Your task to perform on an android device: toggle sleep mode Image 0: 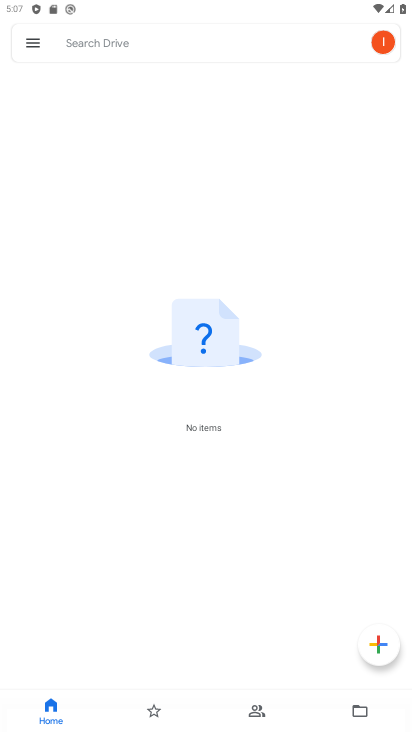
Step 0: press back button
Your task to perform on an android device: toggle sleep mode Image 1: 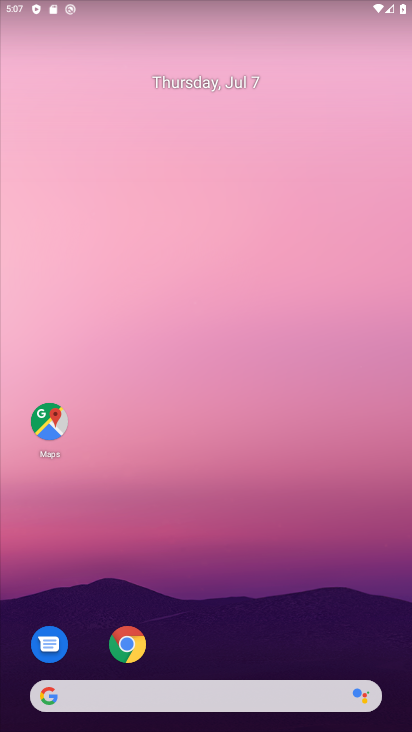
Step 1: drag from (283, 613) to (154, 191)
Your task to perform on an android device: toggle sleep mode Image 2: 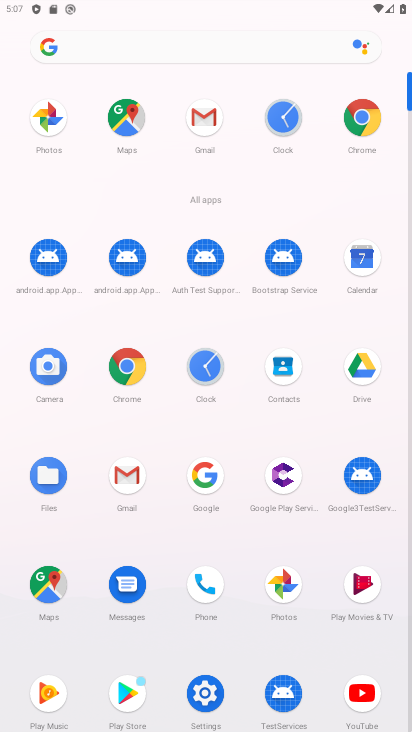
Step 2: click (213, 681)
Your task to perform on an android device: toggle sleep mode Image 3: 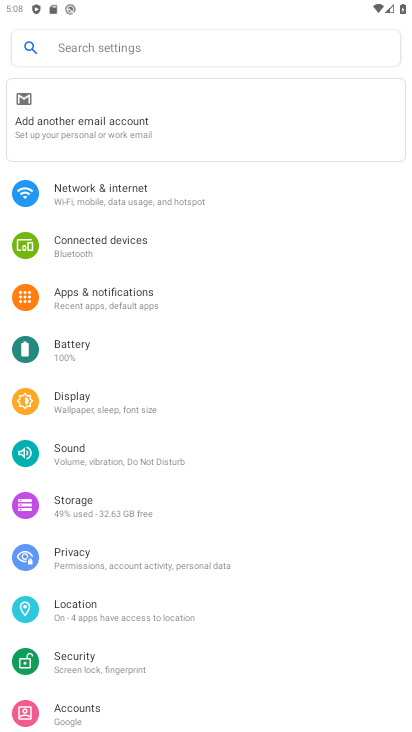
Step 3: drag from (126, 613) to (130, 424)
Your task to perform on an android device: toggle sleep mode Image 4: 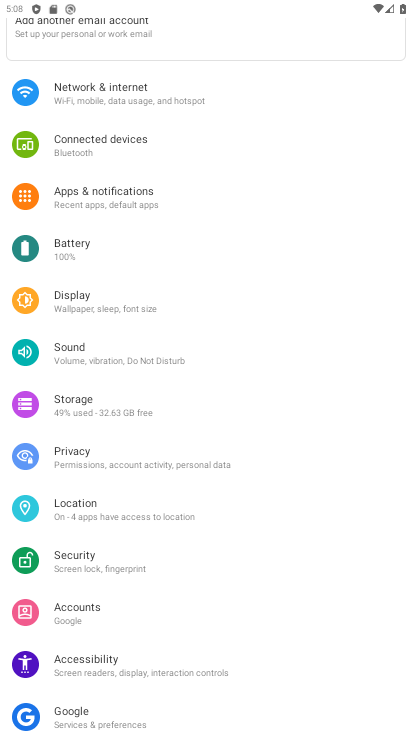
Step 4: drag from (167, 614) to (207, 418)
Your task to perform on an android device: toggle sleep mode Image 5: 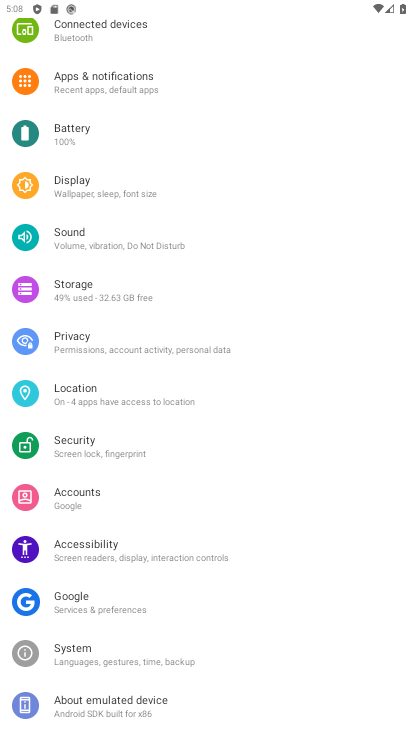
Step 5: drag from (99, 548) to (59, 285)
Your task to perform on an android device: toggle sleep mode Image 6: 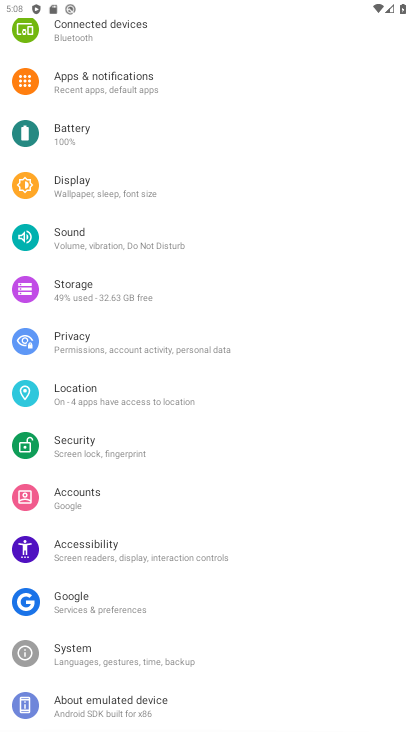
Step 6: drag from (129, 418) to (129, 230)
Your task to perform on an android device: toggle sleep mode Image 7: 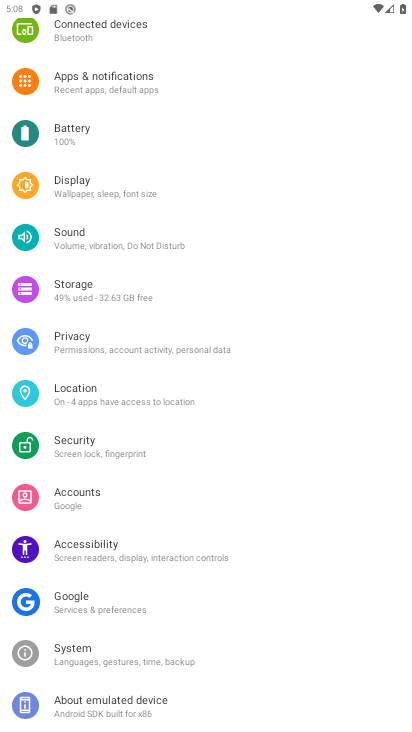
Step 7: drag from (144, 398) to (126, 162)
Your task to perform on an android device: toggle sleep mode Image 8: 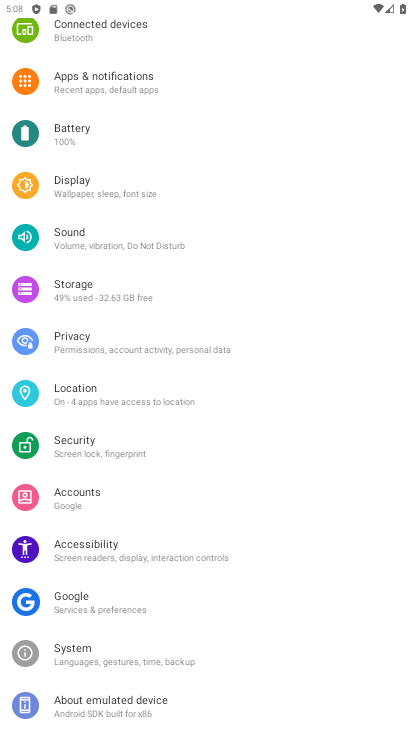
Step 8: drag from (114, 500) to (126, 285)
Your task to perform on an android device: toggle sleep mode Image 9: 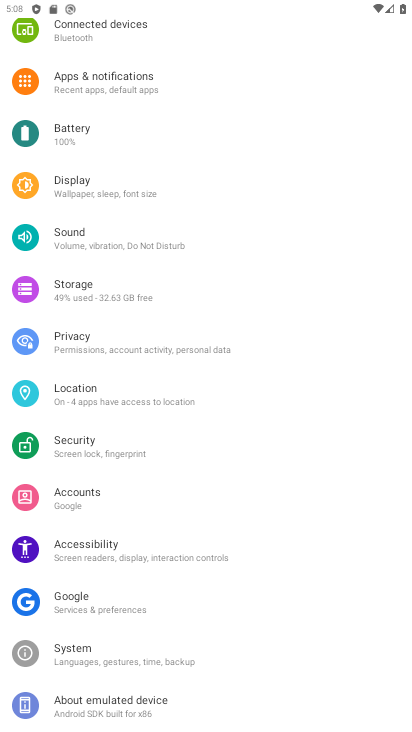
Step 9: drag from (121, 568) to (94, 287)
Your task to perform on an android device: toggle sleep mode Image 10: 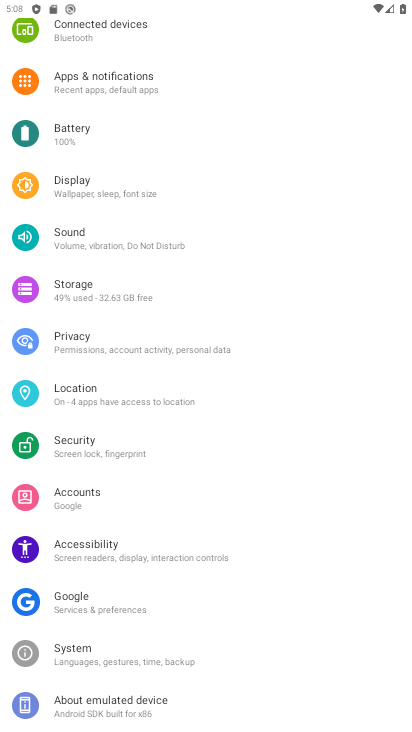
Step 10: click (73, 177)
Your task to perform on an android device: toggle sleep mode Image 11: 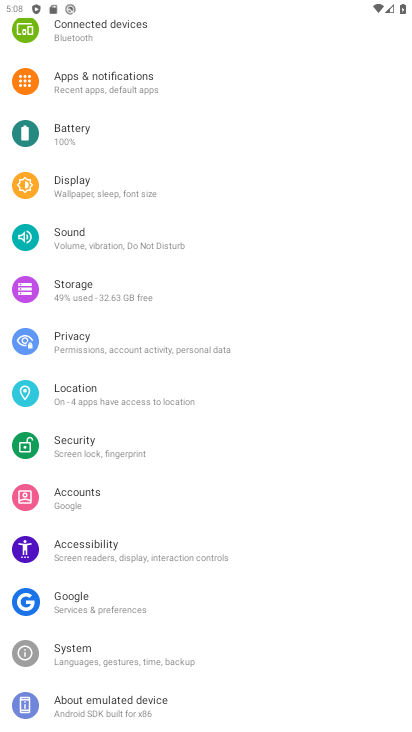
Step 11: click (71, 176)
Your task to perform on an android device: toggle sleep mode Image 12: 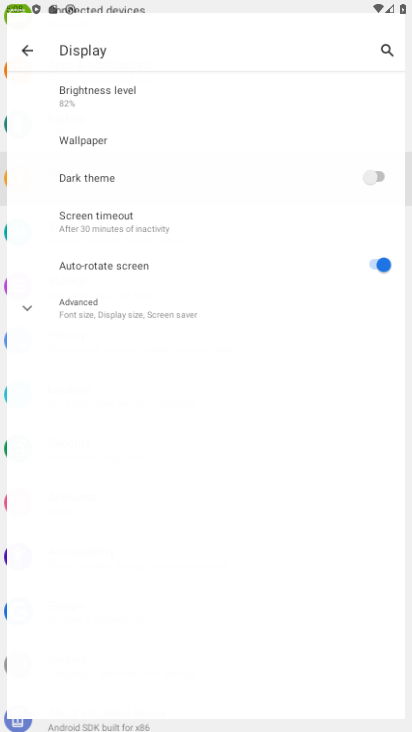
Step 12: click (72, 179)
Your task to perform on an android device: toggle sleep mode Image 13: 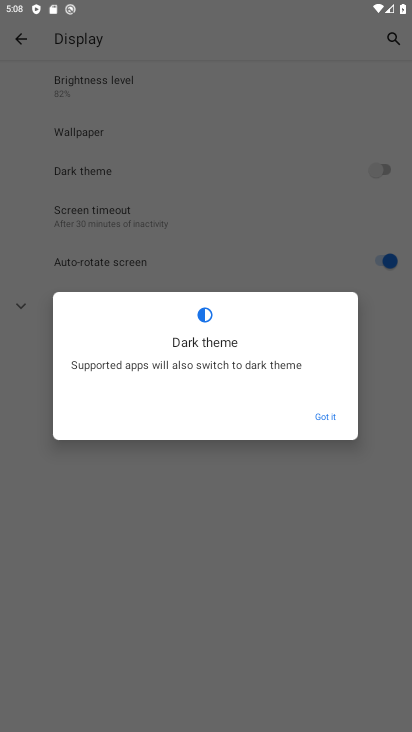
Step 13: click (240, 214)
Your task to perform on an android device: toggle sleep mode Image 14: 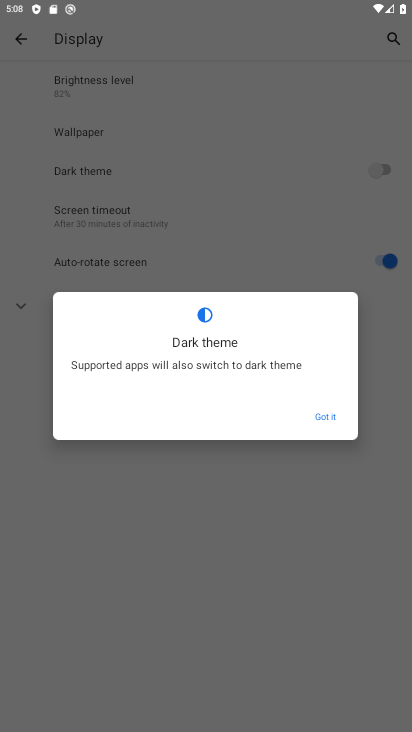
Step 14: click (244, 212)
Your task to perform on an android device: toggle sleep mode Image 15: 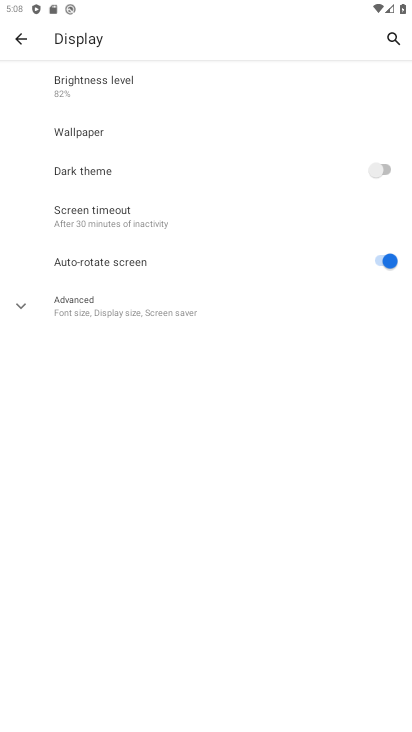
Step 15: click (245, 211)
Your task to perform on an android device: toggle sleep mode Image 16: 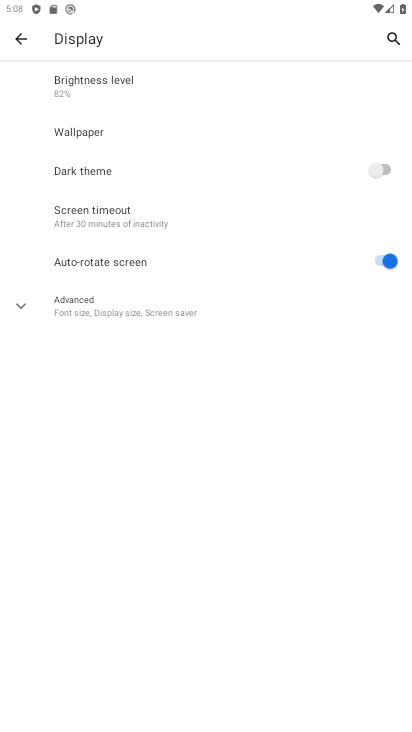
Step 16: click (247, 210)
Your task to perform on an android device: toggle sleep mode Image 17: 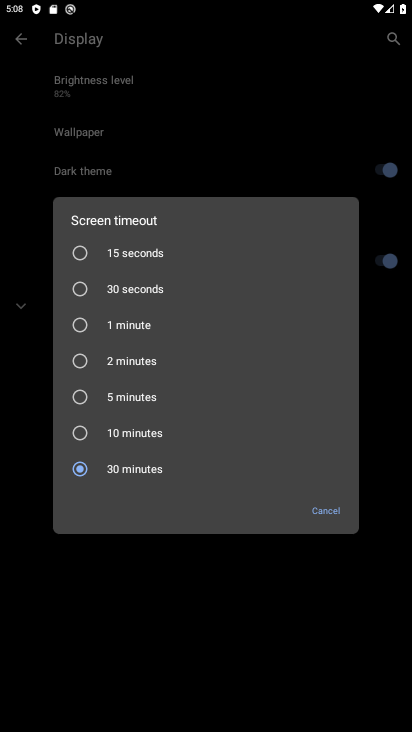
Step 17: click (87, 301)
Your task to perform on an android device: toggle sleep mode Image 18: 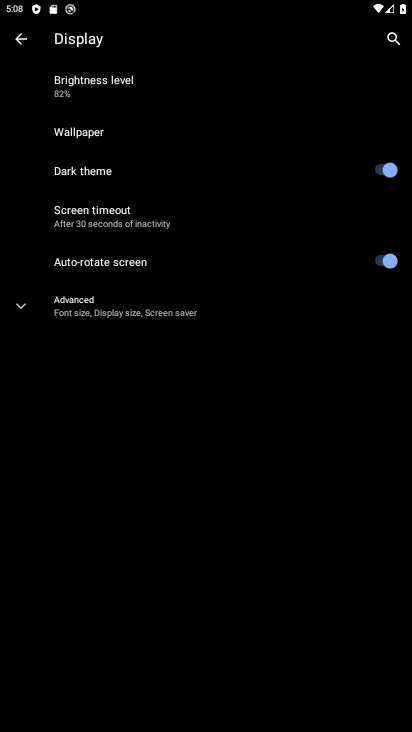
Step 18: click (392, 174)
Your task to perform on an android device: toggle sleep mode Image 19: 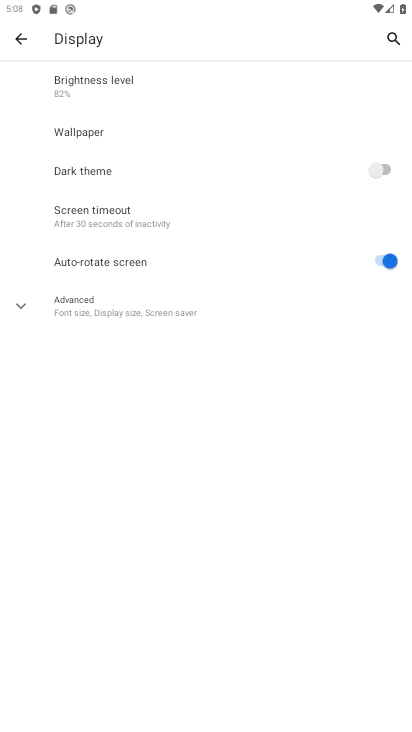
Step 19: task complete